Your task to perform on an android device: move an email to a new category in the gmail app Image 0: 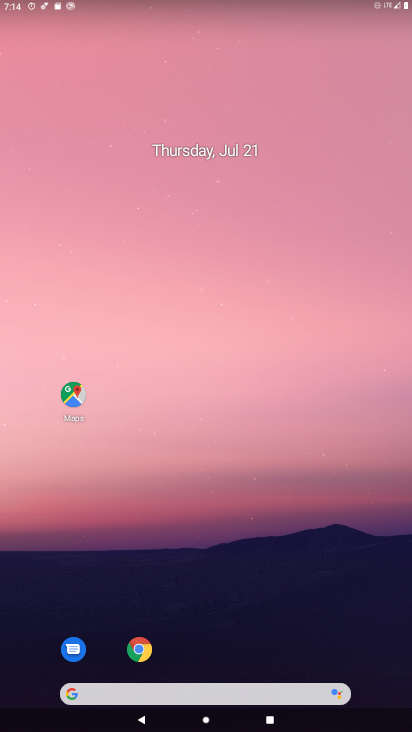
Step 0: drag from (364, 651) to (211, 49)
Your task to perform on an android device: move an email to a new category in the gmail app Image 1: 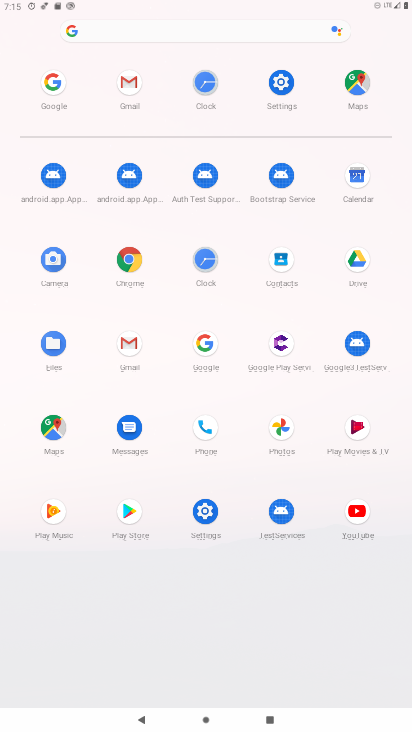
Step 1: click (121, 347)
Your task to perform on an android device: move an email to a new category in the gmail app Image 2: 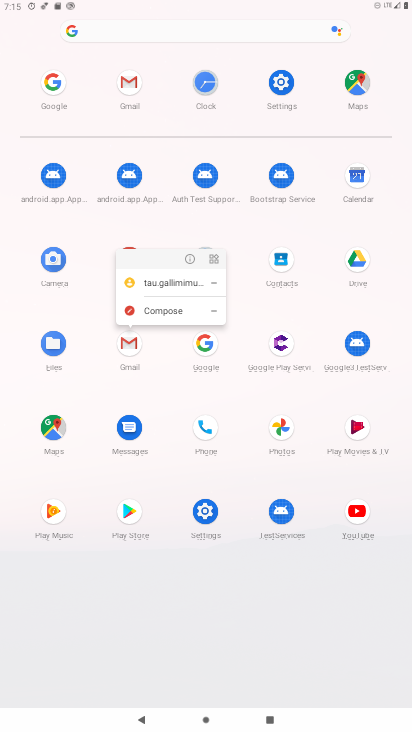
Step 2: click (118, 337)
Your task to perform on an android device: move an email to a new category in the gmail app Image 3: 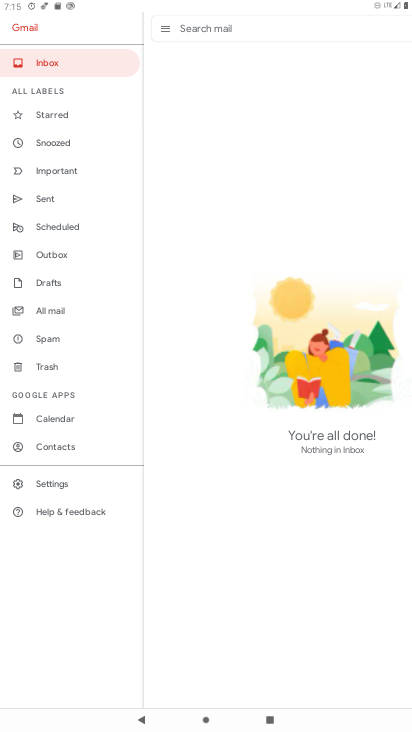
Step 3: task complete